Your task to perform on an android device: Go to Google Image 0: 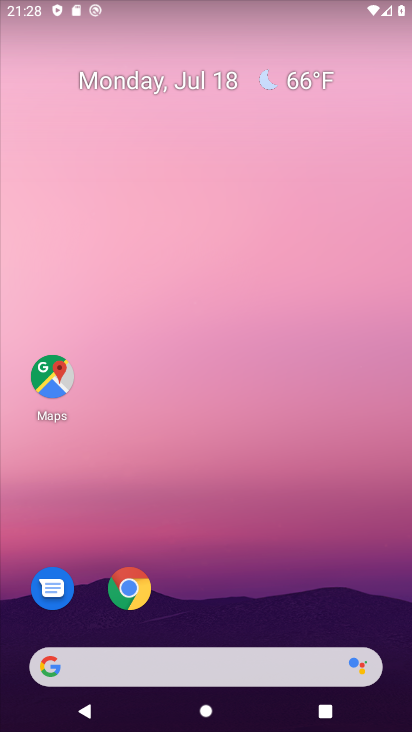
Step 0: press home button
Your task to perform on an android device: Go to Google Image 1: 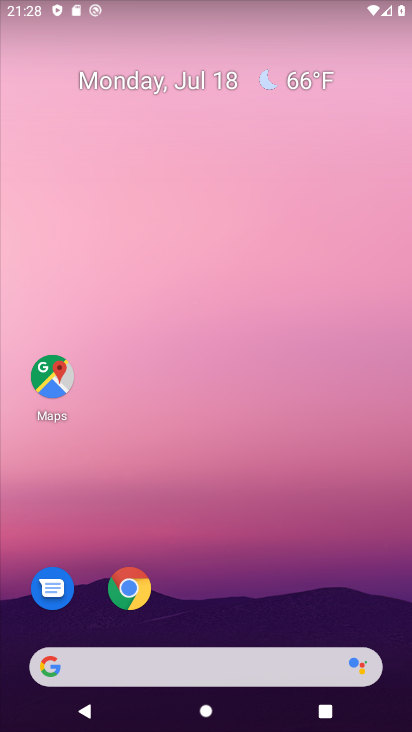
Step 1: drag from (252, 606) to (397, 22)
Your task to perform on an android device: Go to Google Image 2: 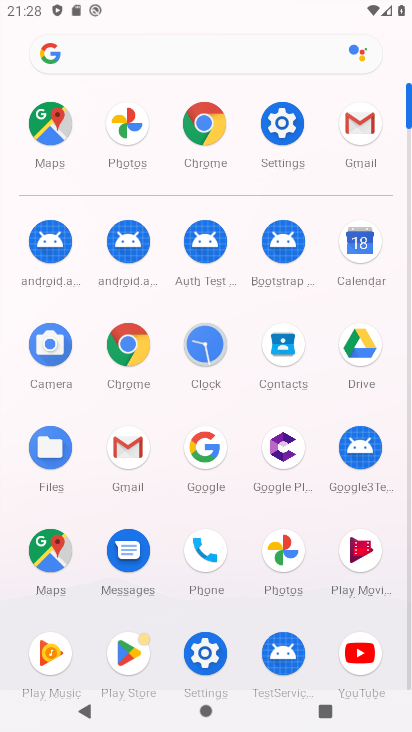
Step 2: click (209, 447)
Your task to perform on an android device: Go to Google Image 3: 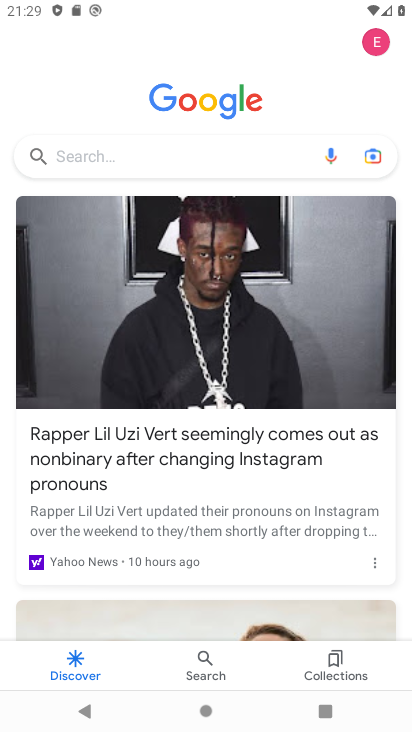
Step 3: task complete